Your task to perform on an android device: Open Youtube and go to the subscriptions tab Image 0: 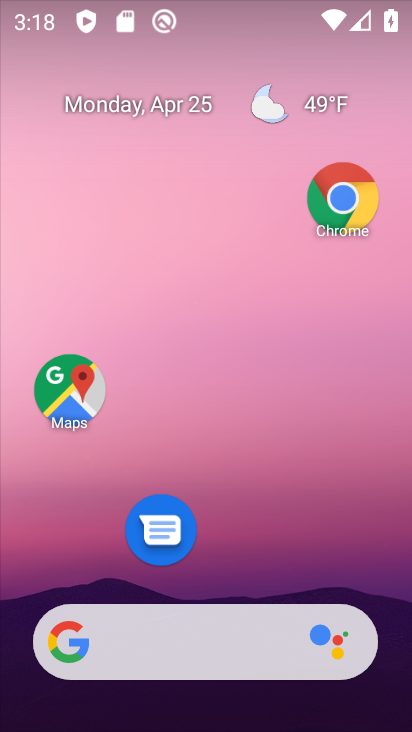
Step 0: drag from (152, 532) to (242, 133)
Your task to perform on an android device: Open Youtube and go to the subscriptions tab Image 1: 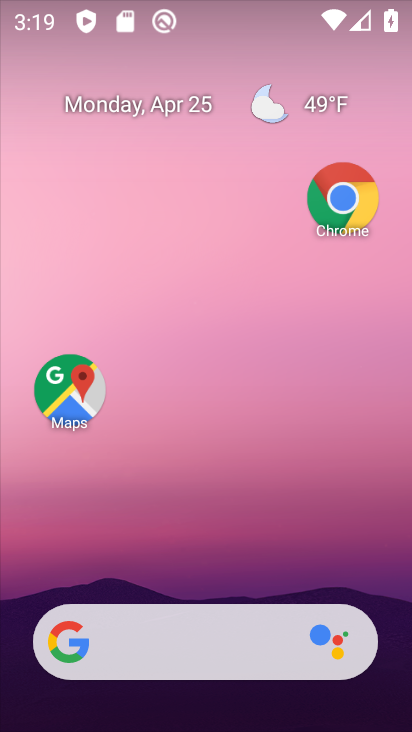
Step 1: drag from (201, 639) to (300, 99)
Your task to perform on an android device: Open Youtube and go to the subscriptions tab Image 2: 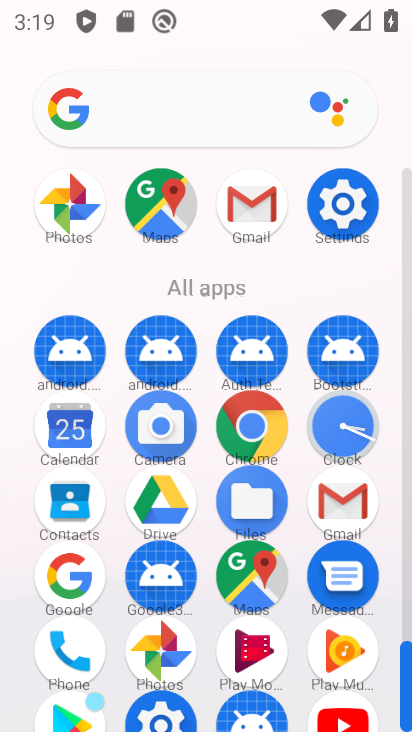
Step 2: drag from (229, 588) to (378, 112)
Your task to perform on an android device: Open Youtube and go to the subscriptions tab Image 3: 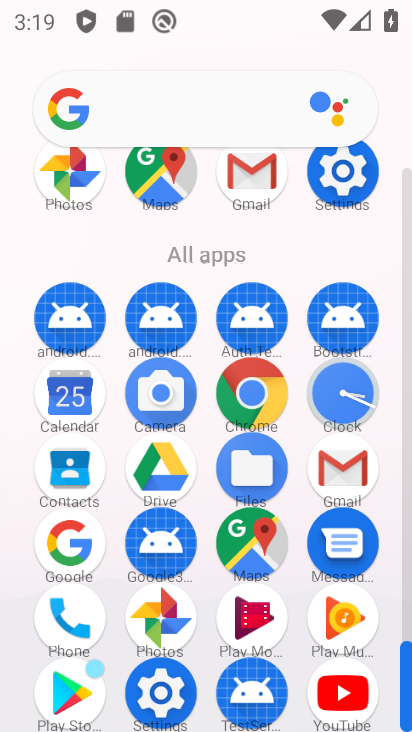
Step 3: click (348, 692)
Your task to perform on an android device: Open Youtube and go to the subscriptions tab Image 4: 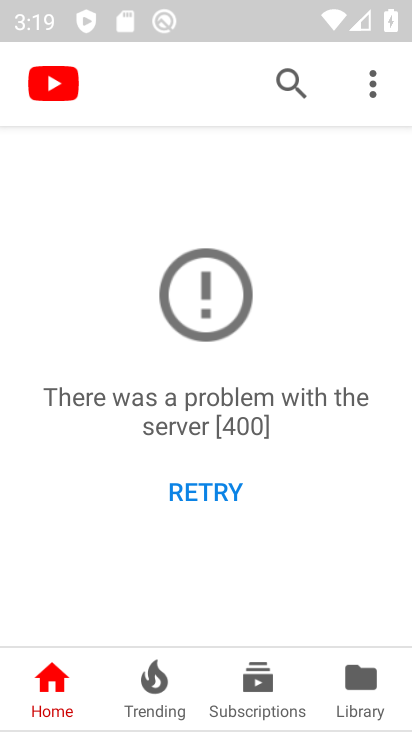
Step 4: click (223, 491)
Your task to perform on an android device: Open Youtube and go to the subscriptions tab Image 5: 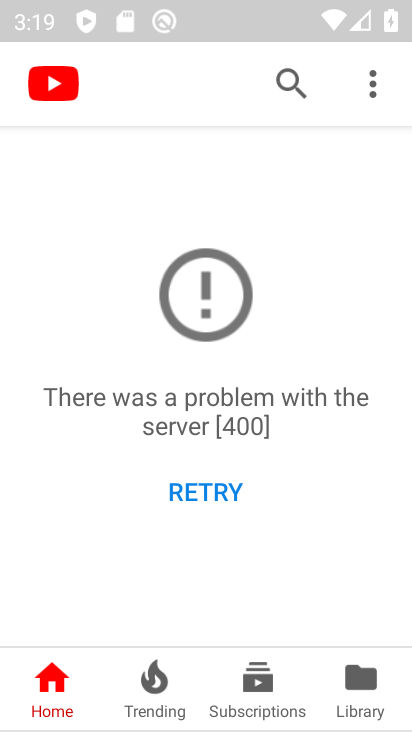
Step 5: click (261, 692)
Your task to perform on an android device: Open Youtube and go to the subscriptions tab Image 6: 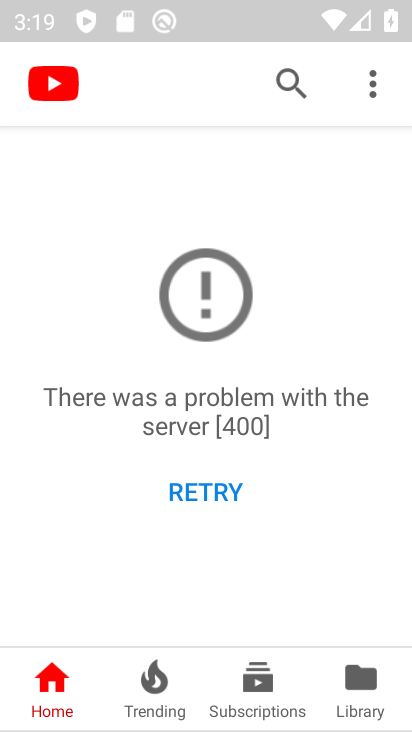
Step 6: click (256, 683)
Your task to perform on an android device: Open Youtube and go to the subscriptions tab Image 7: 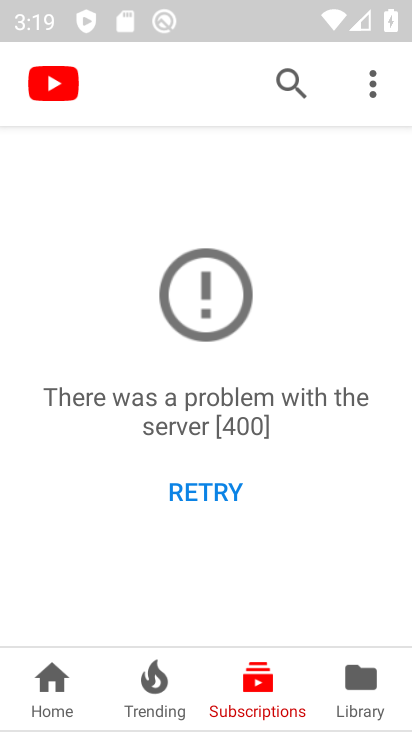
Step 7: task complete